Your task to perform on an android device: Go to Yahoo.com Image 0: 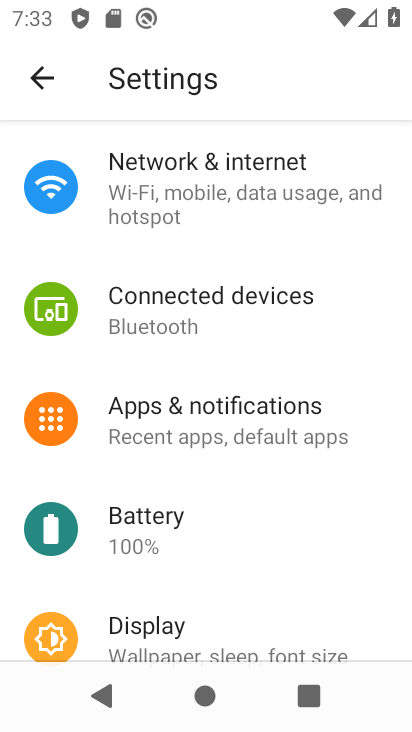
Step 0: drag from (120, 559) to (198, 130)
Your task to perform on an android device: Go to Yahoo.com Image 1: 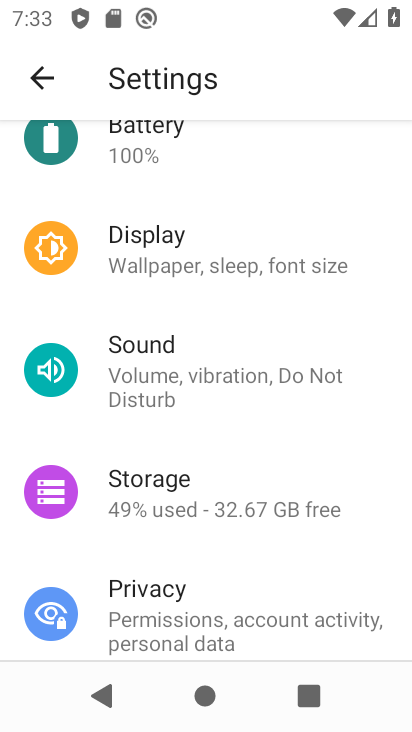
Step 1: drag from (118, 371) to (170, 213)
Your task to perform on an android device: Go to Yahoo.com Image 2: 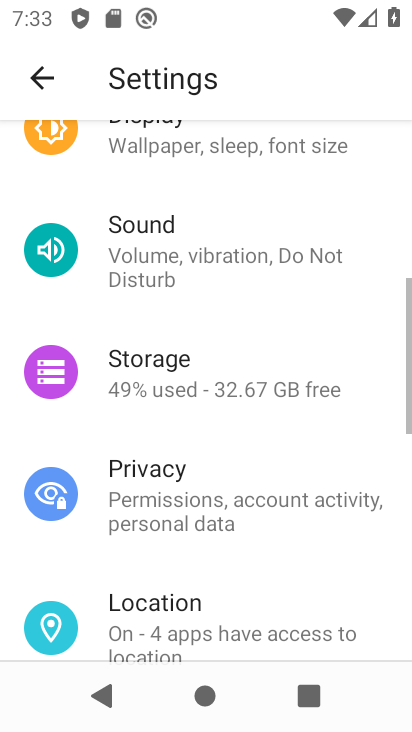
Step 2: drag from (291, 205) to (225, 710)
Your task to perform on an android device: Go to Yahoo.com Image 3: 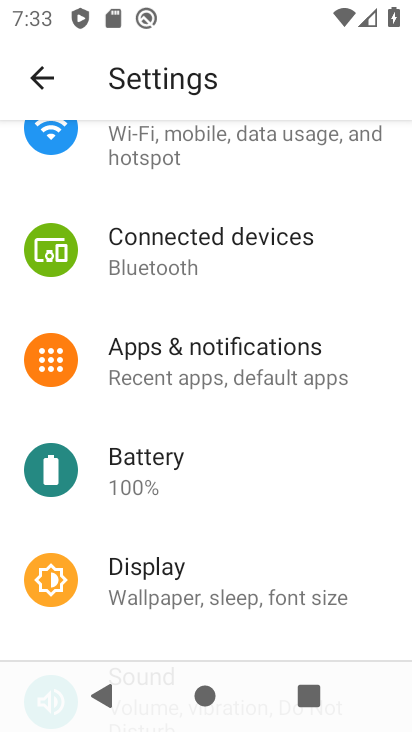
Step 3: press home button
Your task to perform on an android device: Go to Yahoo.com Image 4: 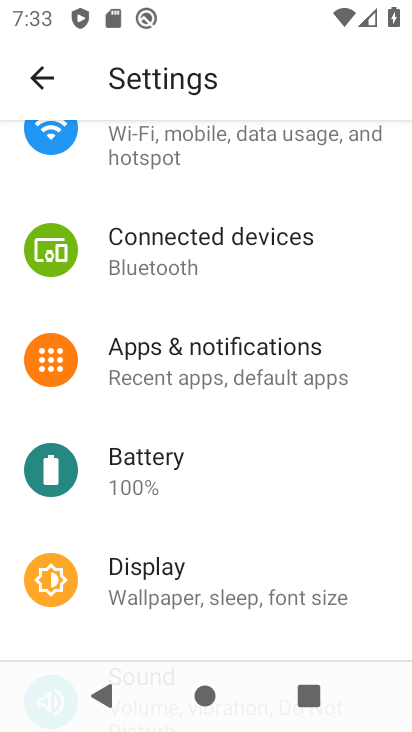
Step 4: click (346, 412)
Your task to perform on an android device: Go to Yahoo.com Image 5: 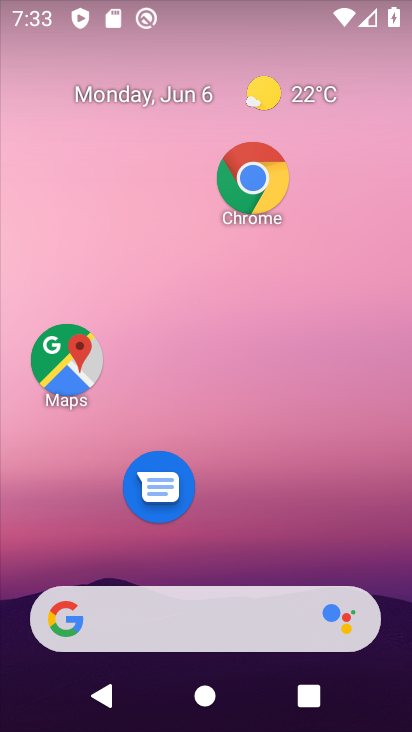
Step 5: drag from (184, 547) to (193, 21)
Your task to perform on an android device: Go to Yahoo.com Image 6: 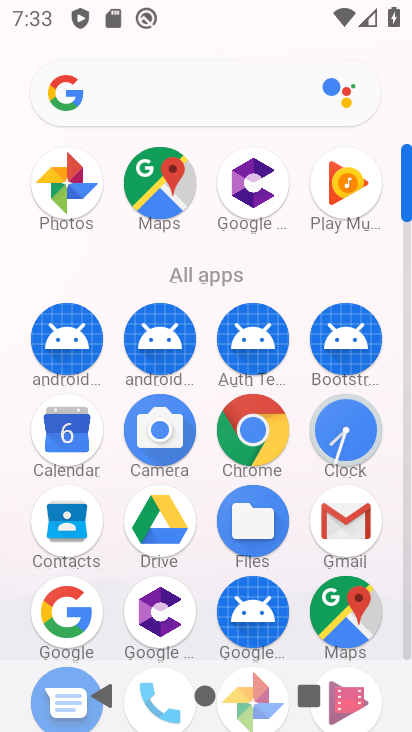
Step 6: click (171, 116)
Your task to perform on an android device: Go to Yahoo.com Image 7: 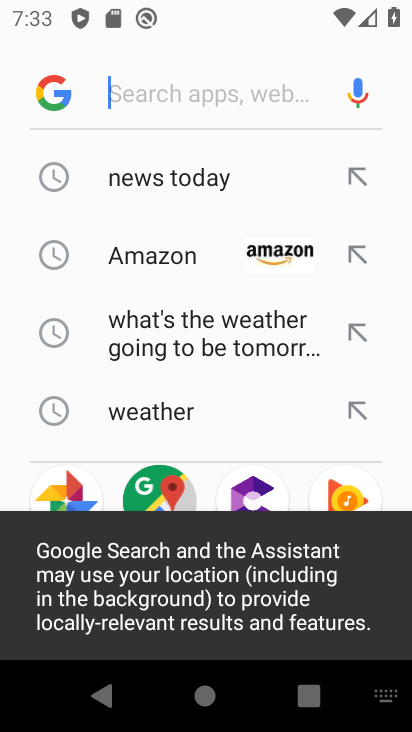
Step 7: type "Yahoo.com"
Your task to perform on an android device: Go to Yahoo.com Image 8: 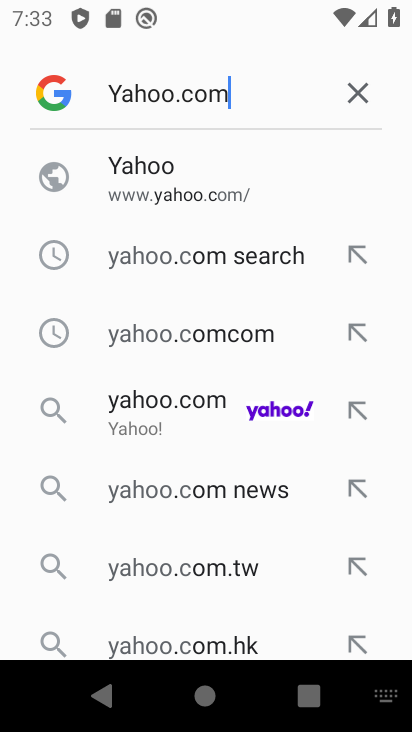
Step 8: type ""
Your task to perform on an android device: Go to Yahoo.com Image 9: 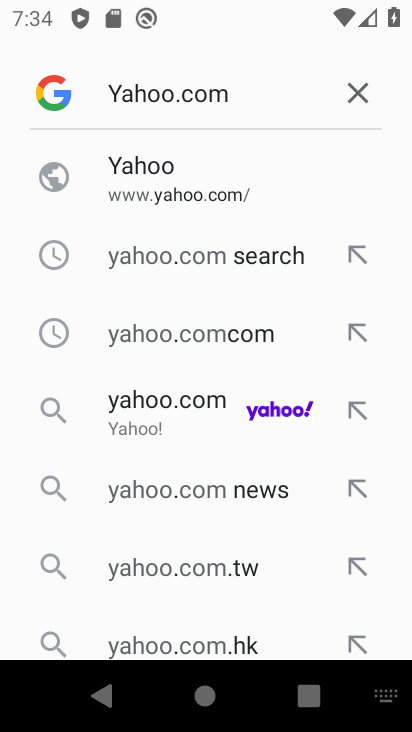
Step 9: click (235, 410)
Your task to perform on an android device: Go to Yahoo.com Image 10: 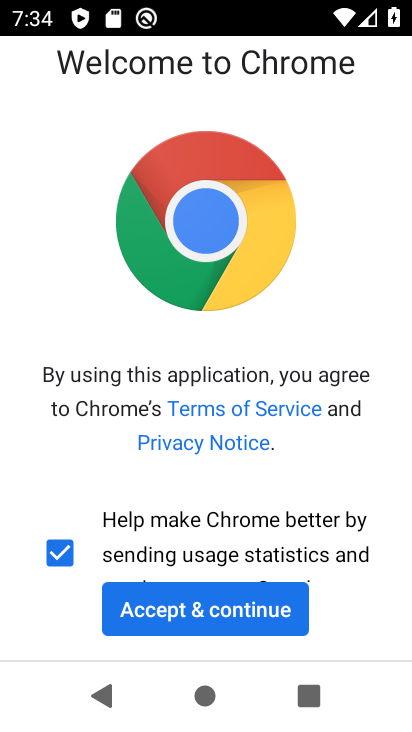
Step 10: click (229, 605)
Your task to perform on an android device: Go to Yahoo.com Image 11: 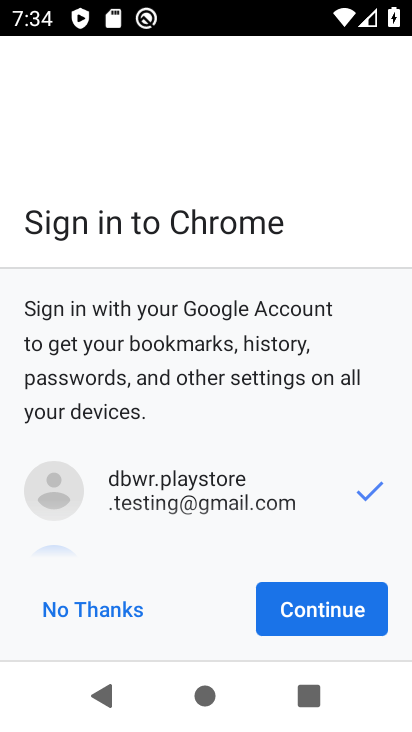
Step 11: click (281, 594)
Your task to perform on an android device: Go to Yahoo.com Image 12: 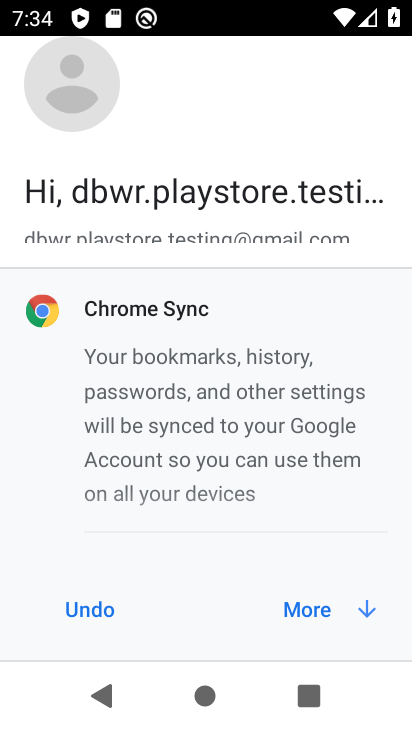
Step 12: click (297, 602)
Your task to perform on an android device: Go to Yahoo.com Image 13: 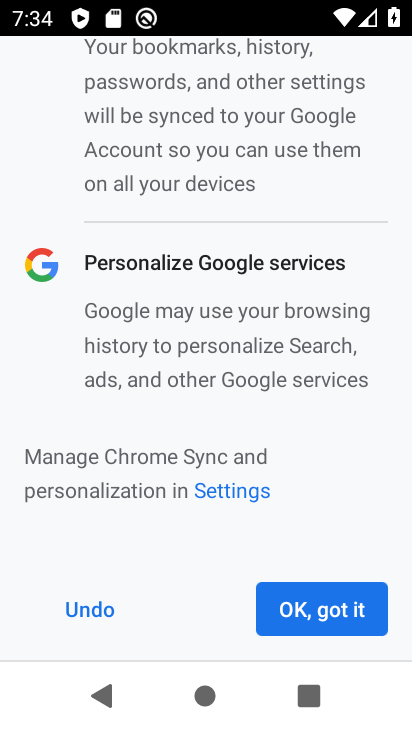
Step 13: click (294, 601)
Your task to perform on an android device: Go to Yahoo.com Image 14: 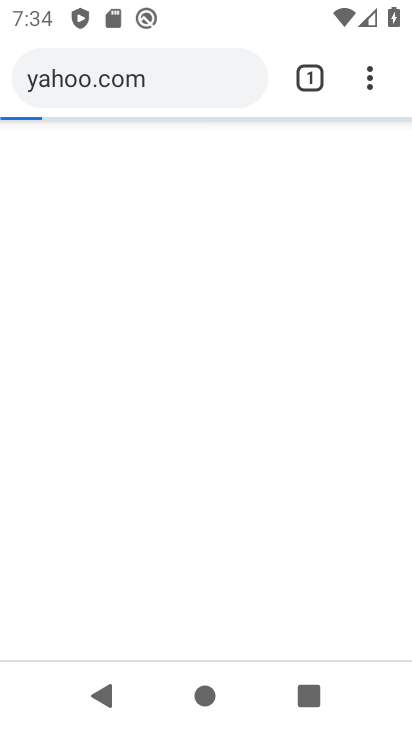
Step 14: task complete